Your task to perform on an android device: toggle translation in the chrome app Image 0: 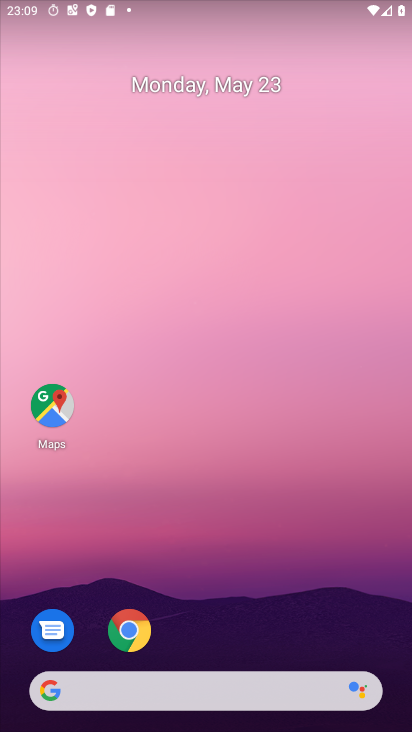
Step 0: click (135, 633)
Your task to perform on an android device: toggle translation in the chrome app Image 1: 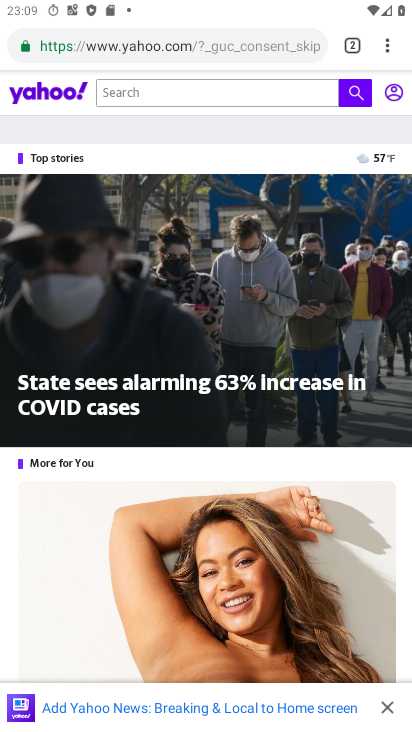
Step 1: click (387, 46)
Your task to perform on an android device: toggle translation in the chrome app Image 2: 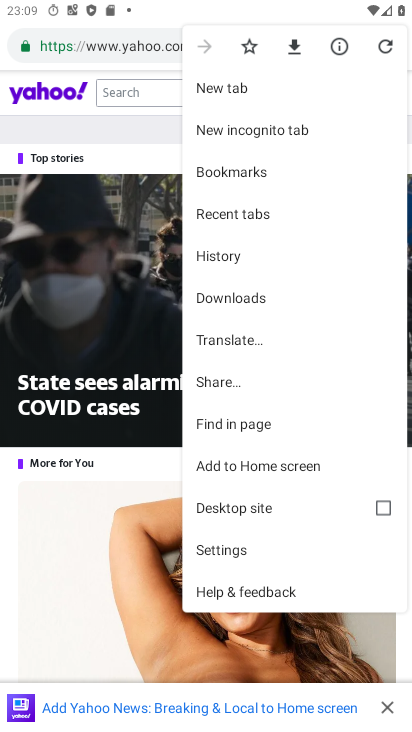
Step 2: click (233, 558)
Your task to perform on an android device: toggle translation in the chrome app Image 3: 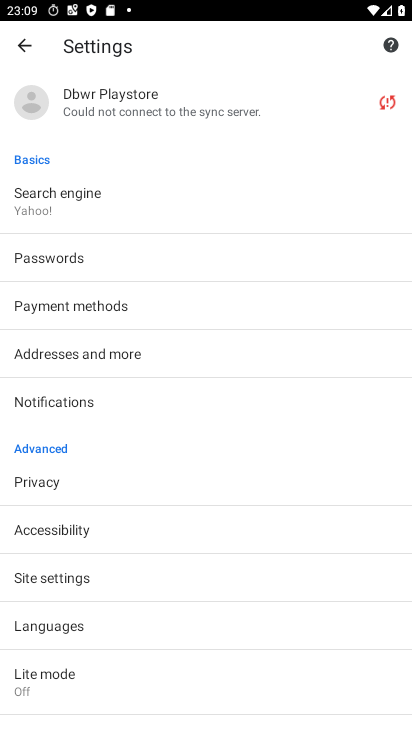
Step 3: click (41, 628)
Your task to perform on an android device: toggle translation in the chrome app Image 4: 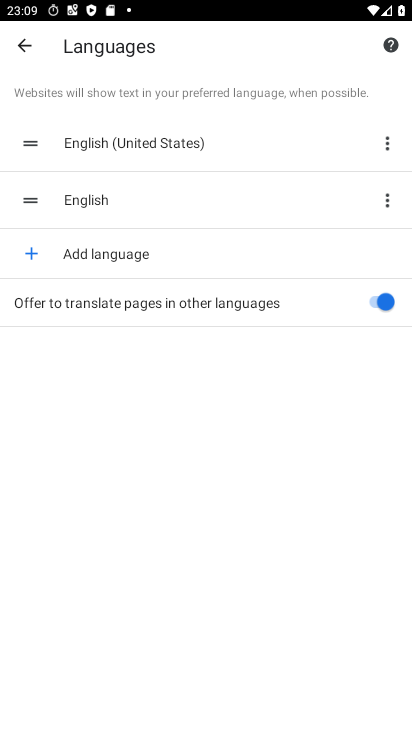
Step 4: click (381, 300)
Your task to perform on an android device: toggle translation in the chrome app Image 5: 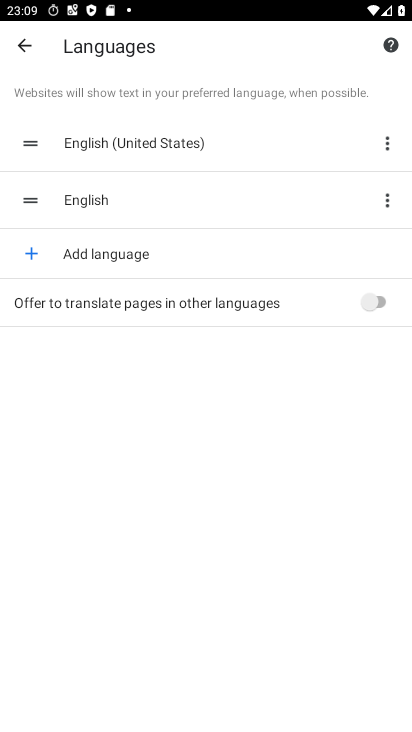
Step 5: task complete